Your task to perform on an android device: When is my next appointment? Image 0: 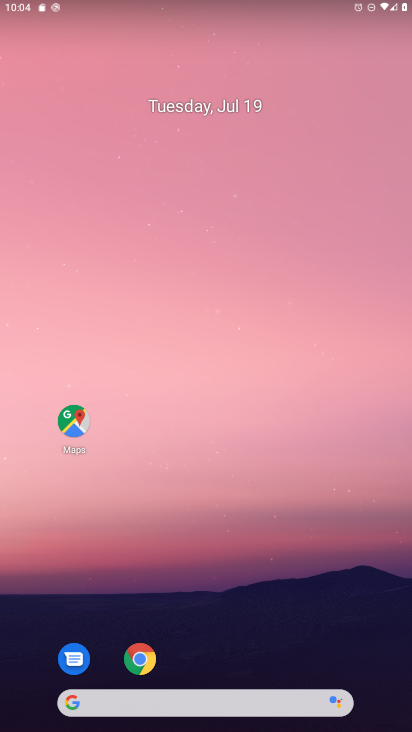
Step 0: drag from (172, 681) to (225, 206)
Your task to perform on an android device: When is my next appointment? Image 1: 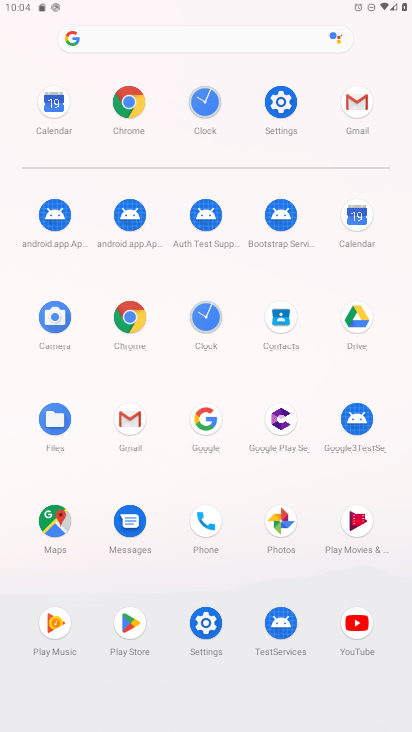
Step 1: click (350, 216)
Your task to perform on an android device: When is my next appointment? Image 2: 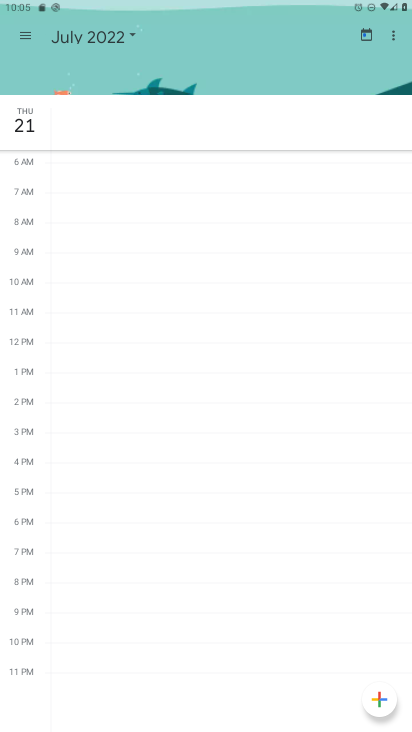
Step 2: task complete